Your task to perform on an android device: check storage Image 0: 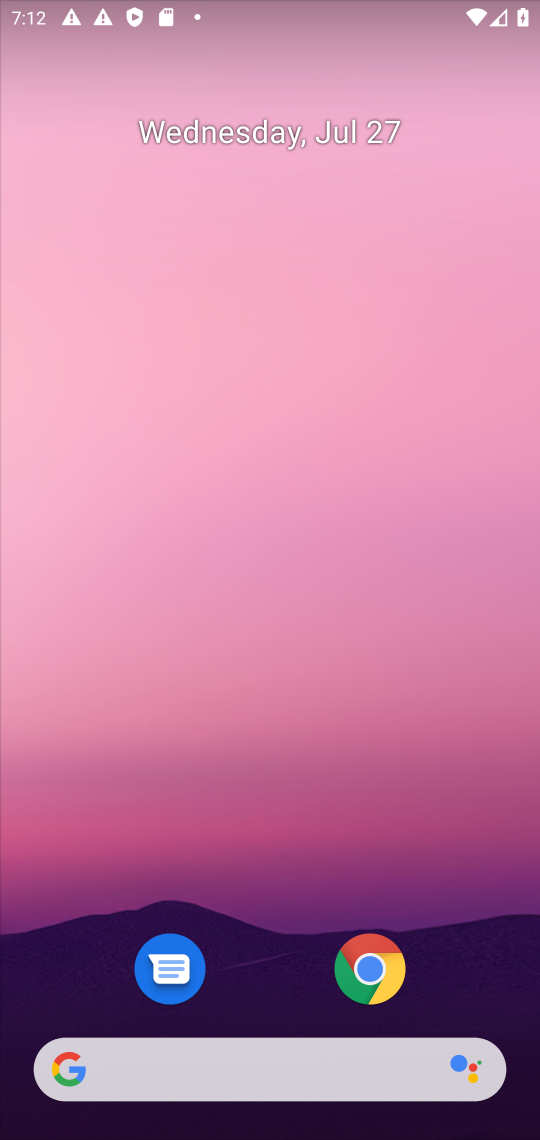
Step 0: drag from (276, 866) to (397, 254)
Your task to perform on an android device: check storage Image 1: 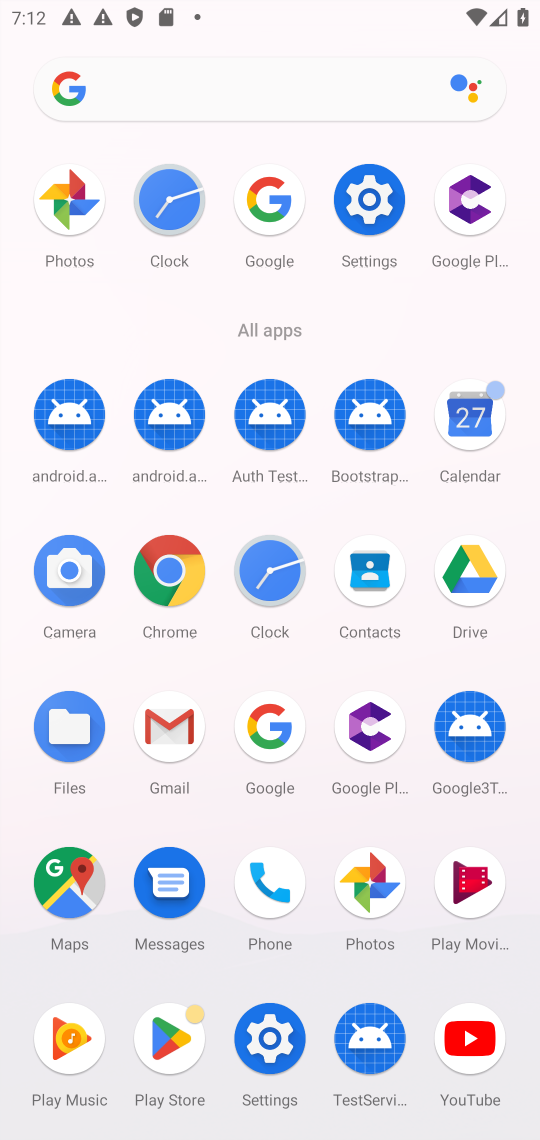
Step 1: click (364, 205)
Your task to perform on an android device: check storage Image 2: 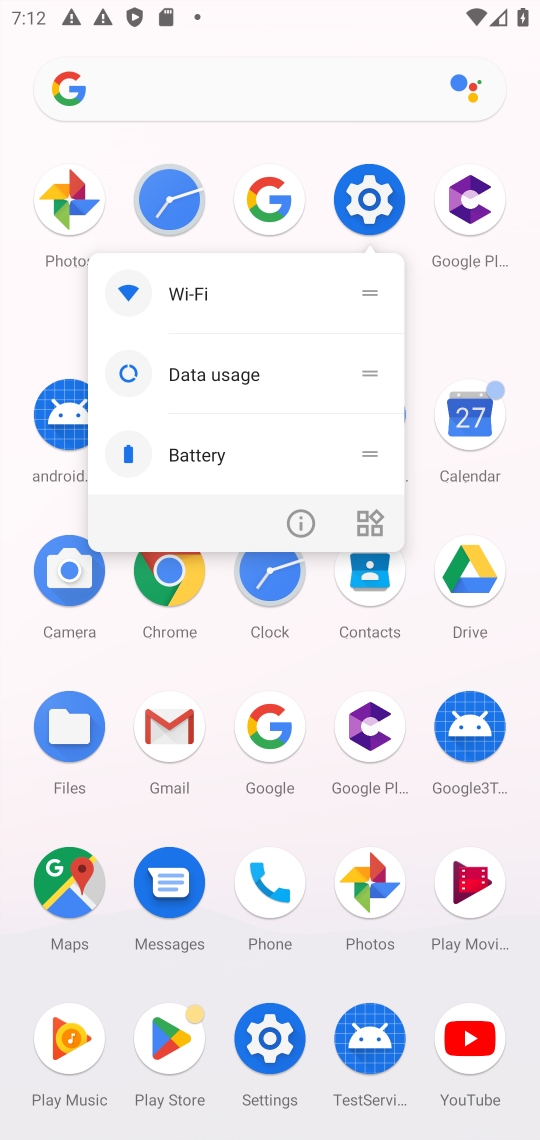
Step 2: click (263, 1063)
Your task to perform on an android device: check storage Image 3: 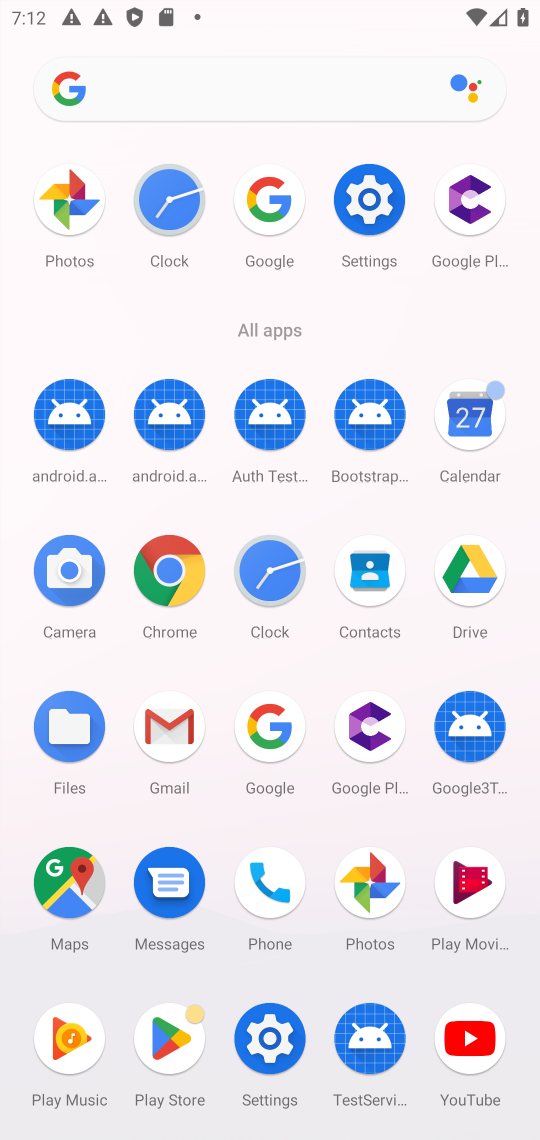
Step 3: click (271, 1045)
Your task to perform on an android device: check storage Image 4: 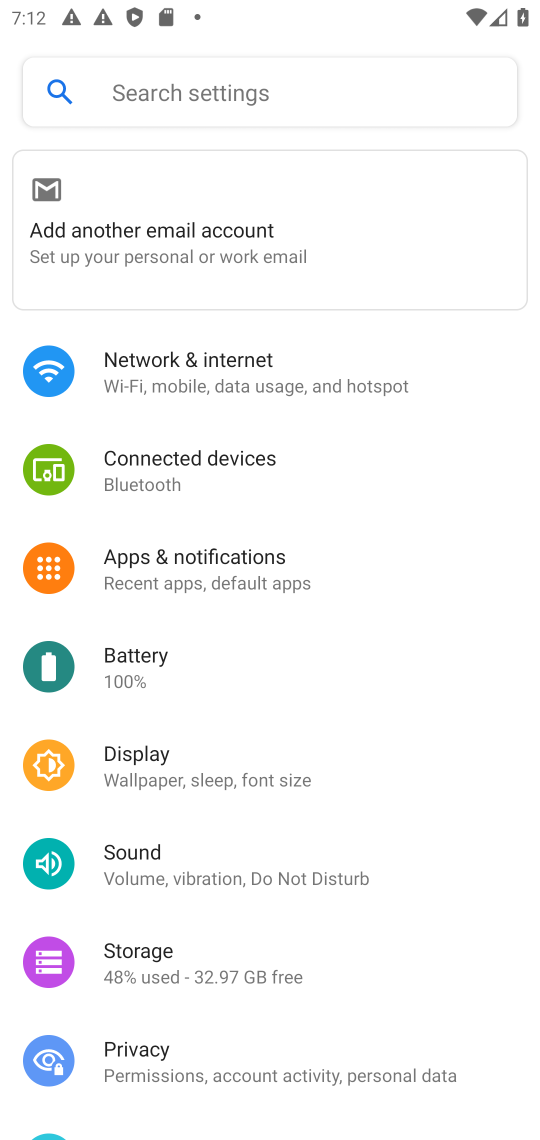
Step 4: click (187, 974)
Your task to perform on an android device: check storage Image 5: 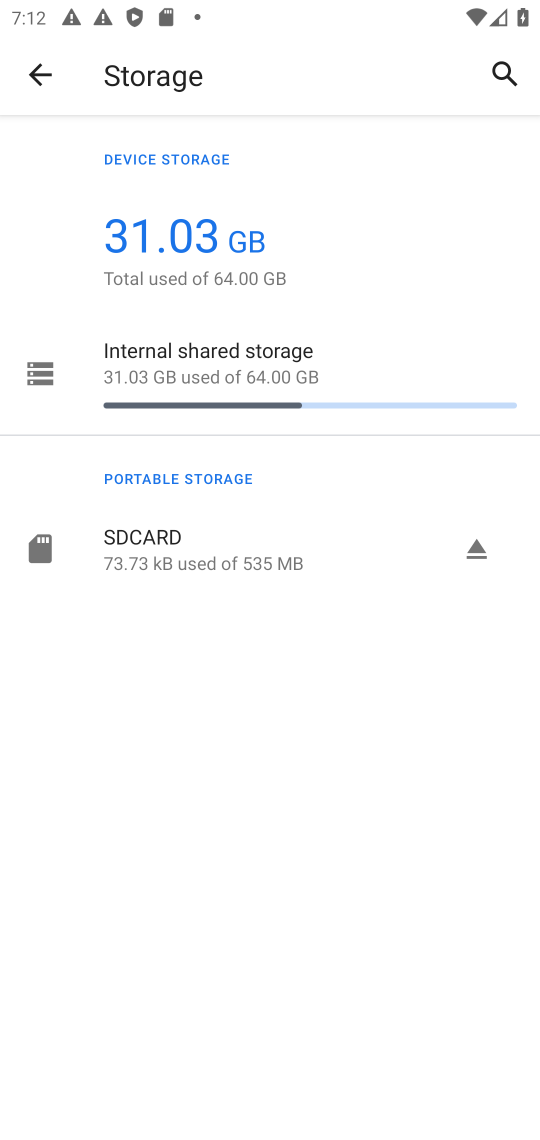
Step 5: task complete